Your task to perform on an android device: delete a single message in the gmail app Image 0: 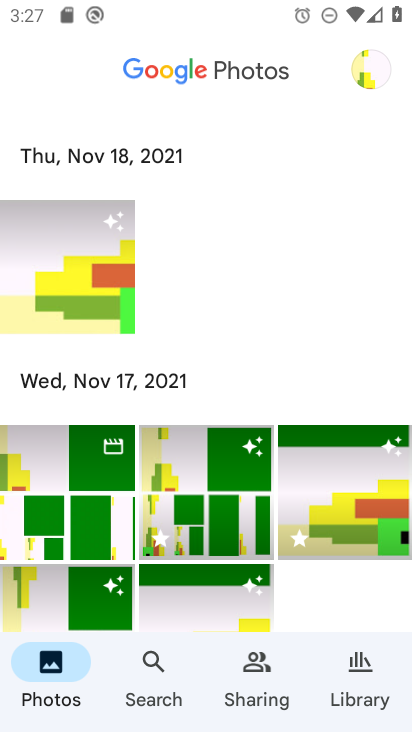
Step 0: press back button
Your task to perform on an android device: delete a single message in the gmail app Image 1: 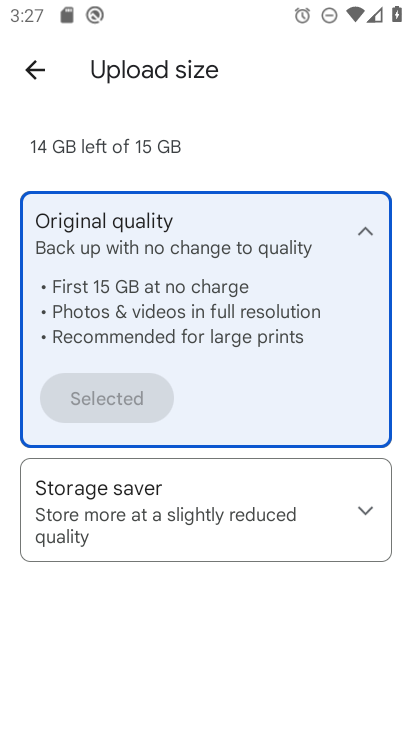
Step 1: press back button
Your task to perform on an android device: delete a single message in the gmail app Image 2: 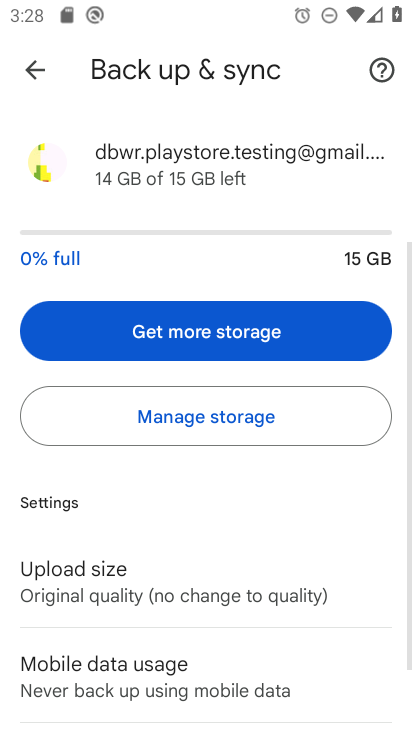
Step 2: press back button
Your task to perform on an android device: delete a single message in the gmail app Image 3: 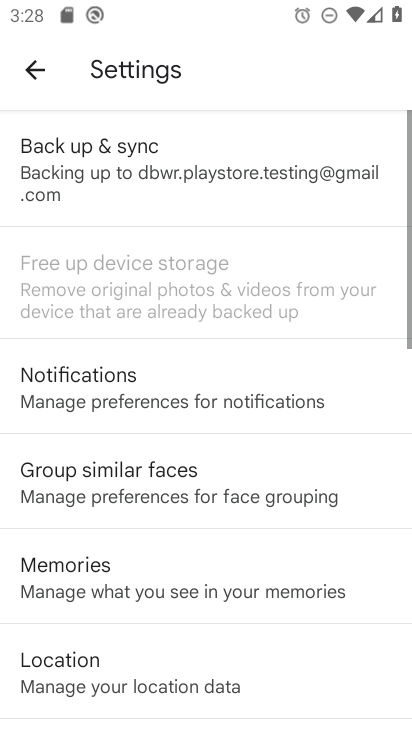
Step 3: press home button
Your task to perform on an android device: delete a single message in the gmail app Image 4: 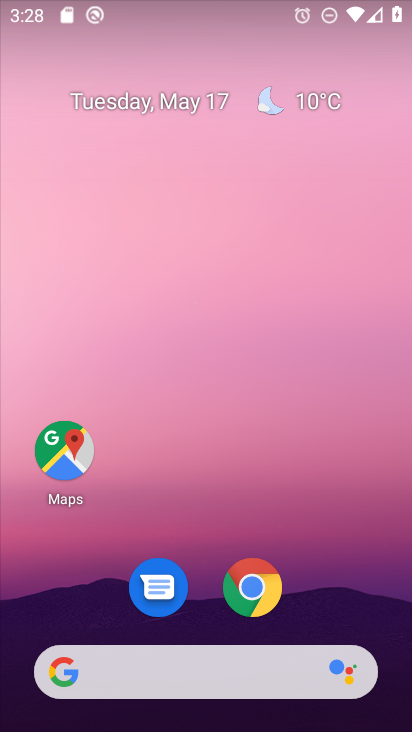
Step 4: drag from (329, 544) to (312, 53)
Your task to perform on an android device: delete a single message in the gmail app Image 5: 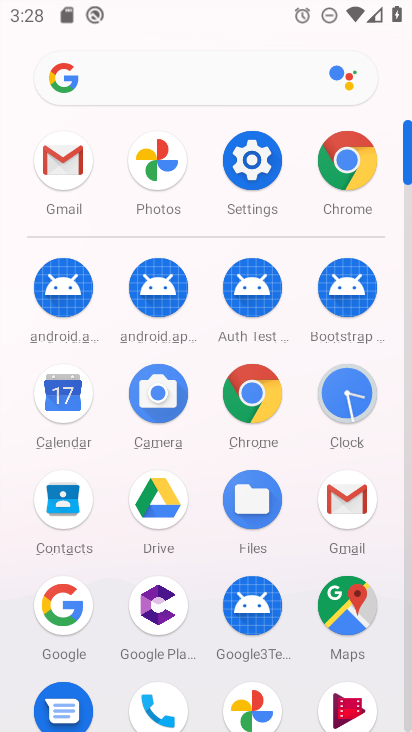
Step 5: drag from (20, 545) to (25, 211)
Your task to perform on an android device: delete a single message in the gmail app Image 6: 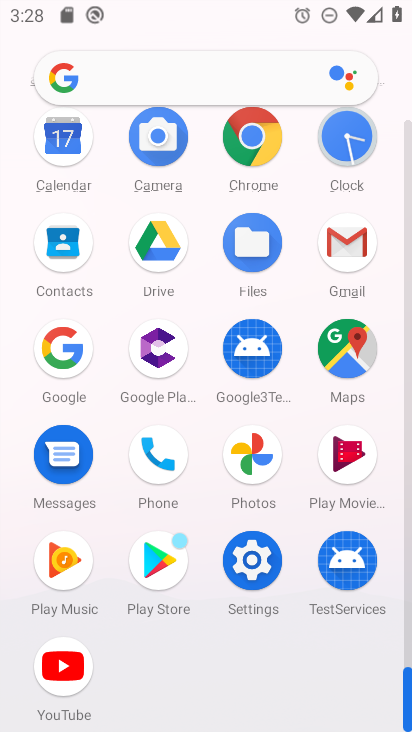
Step 6: click (348, 236)
Your task to perform on an android device: delete a single message in the gmail app Image 7: 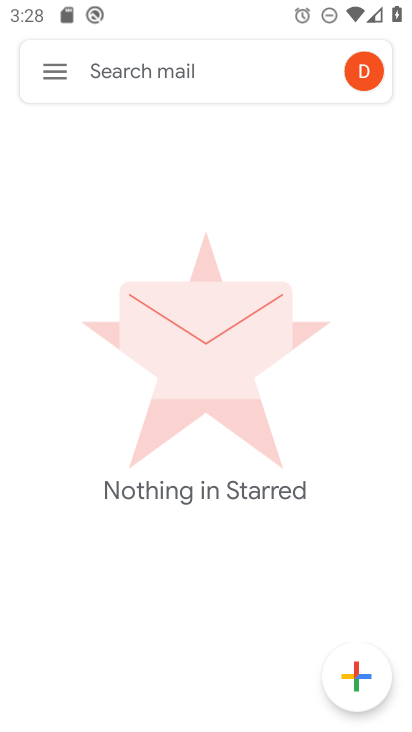
Step 7: click (49, 59)
Your task to perform on an android device: delete a single message in the gmail app Image 8: 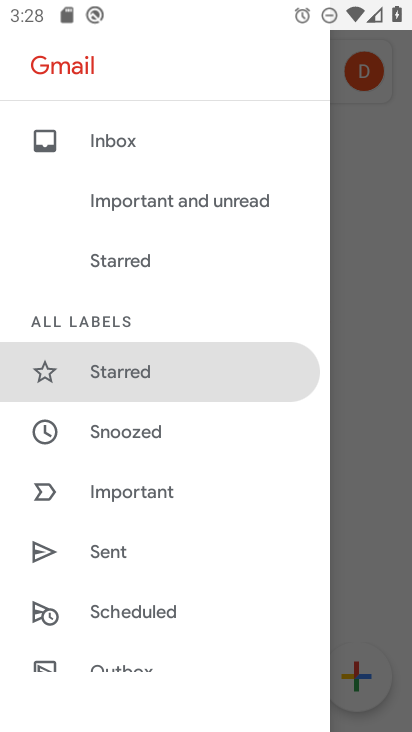
Step 8: drag from (210, 561) to (196, 114)
Your task to perform on an android device: delete a single message in the gmail app Image 9: 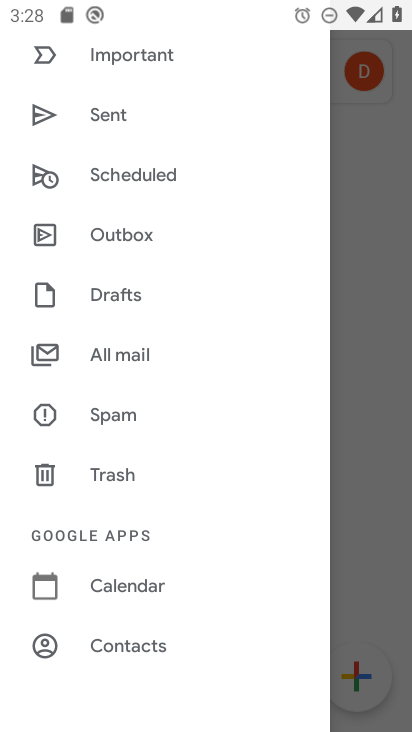
Step 9: drag from (184, 584) to (181, 196)
Your task to perform on an android device: delete a single message in the gmail app Image 10: 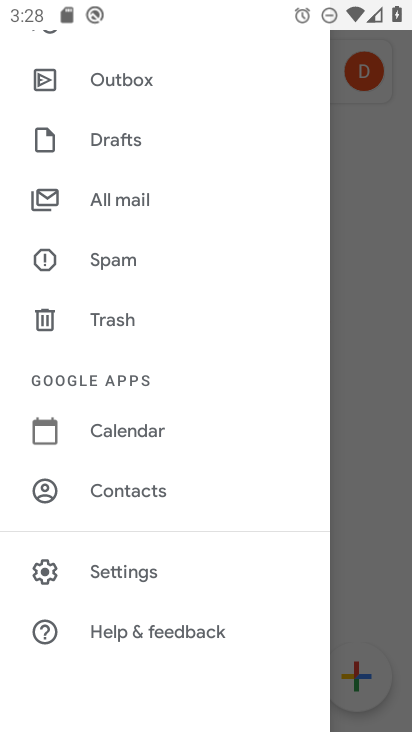
Step 10: click (137, 191)
Your task to perform on an android device: delete a single message in the gmail app Image 11: 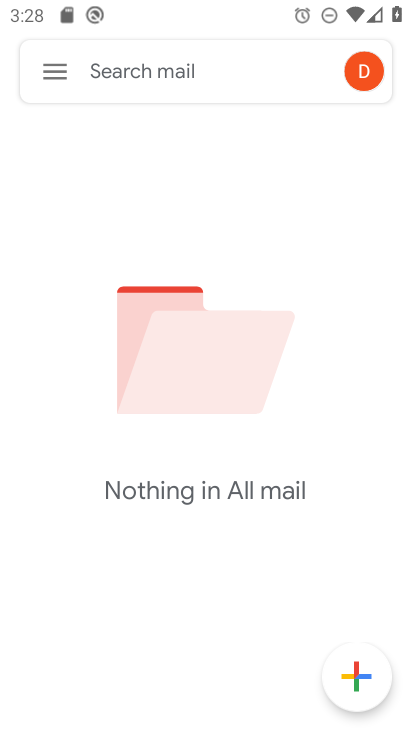
Step 11: click (46, 66)
Your task to perform on an android device: delete a single message in the gmail app Image 12: 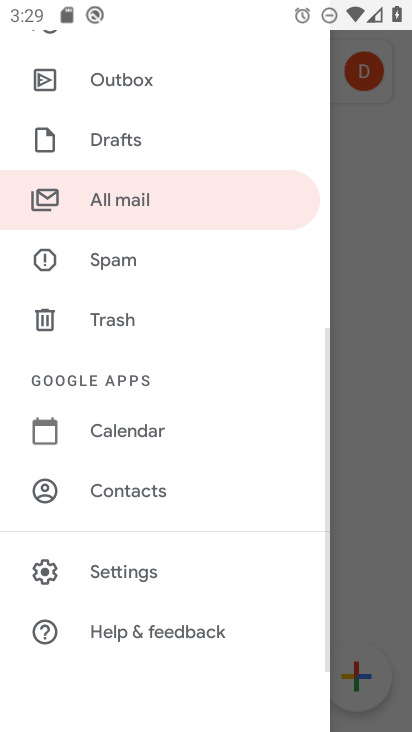
Step 12: drag from (203, 141) to (193, 506)
Your task to perform on an android device: delete a single message in the gmail app Image 13: 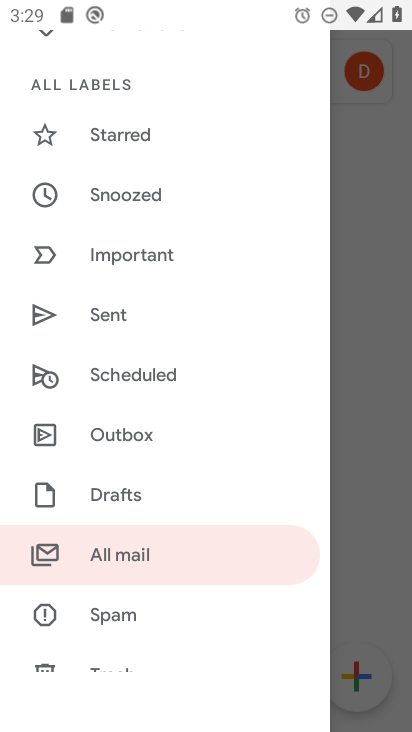
Step 13: drag from (176, 586) to (169, 279)
Your task to perform on an android device: delete a single message in the gmail app Image 14: 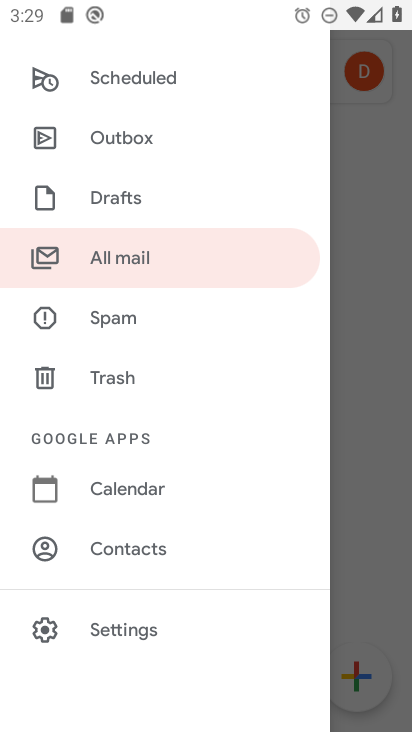
Step 14: drag from (181, 119) to (201, 608)
Your task to perform on an android device: delete a single message in the gmail app Image 15: 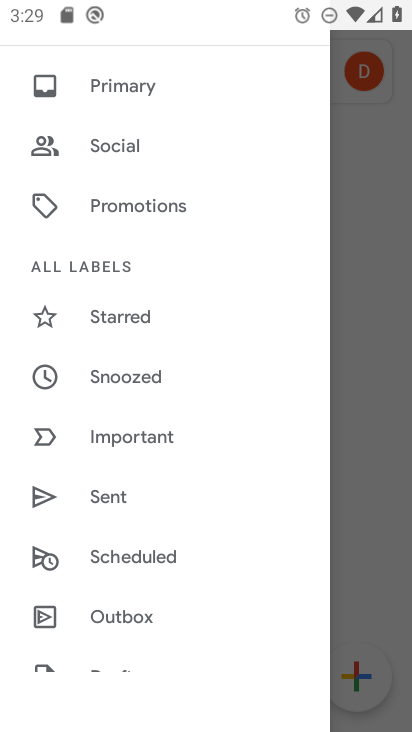
Step 15: click (154, 73)
Your task to perform on an android device: delete a single message in the gmail app Image 16: 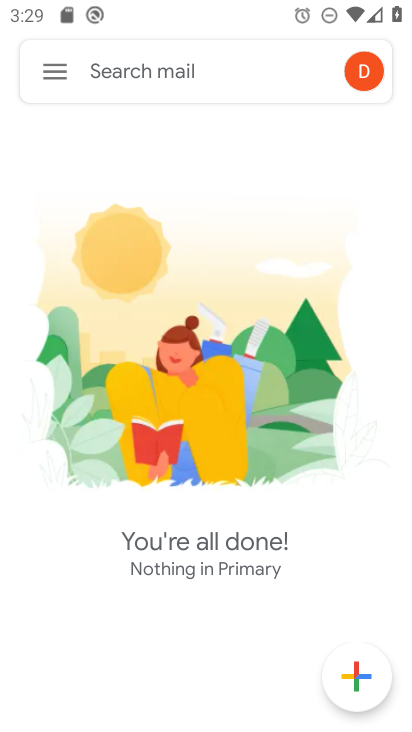
Step 16: task complete